Your task to perform on an android device: Go to settings Image 0: 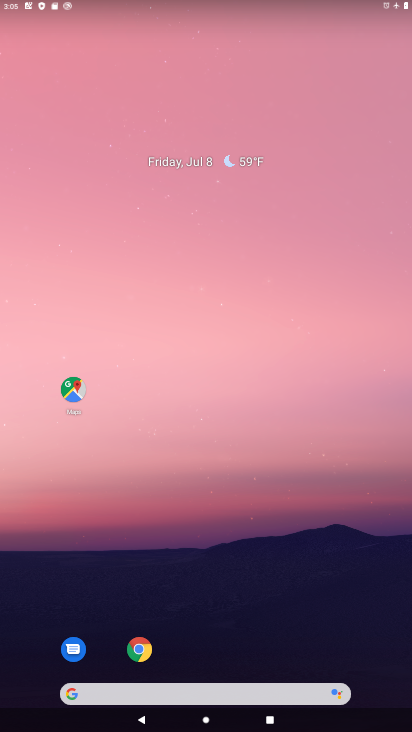
Step 0: drag from (284, 565) to (267, 137)
Your task to perform on an android device: Go to settings Image 1: 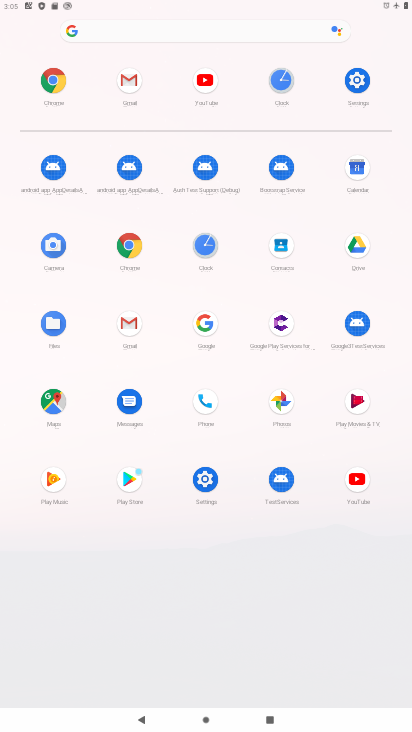
Step 1: click (356, 79)
Your task to perform on an android device: Go to settings Image 2: 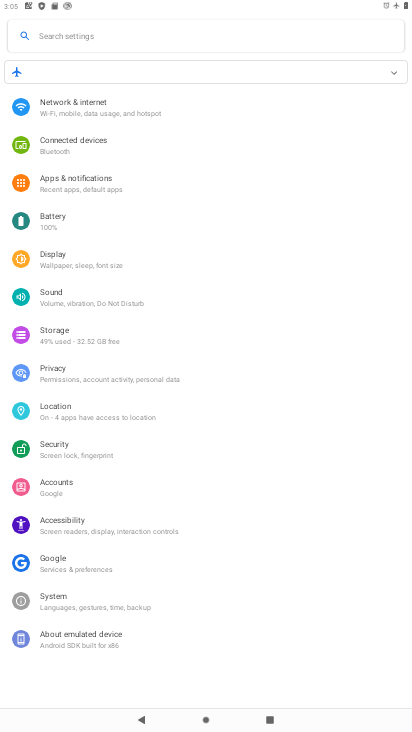
Step 2: task complete